Your task to perform on an android device: turn off airplane mode Image 0: 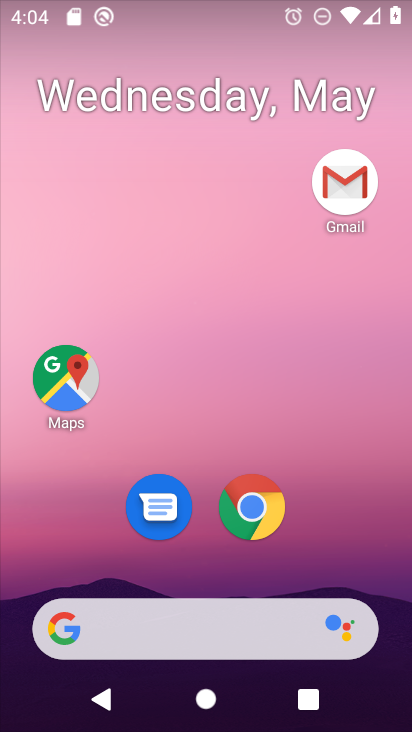
Step 0: drag from (313, 552) to (243, 300)
Your task to perform on an android device: turn off airplane mode Image 1: 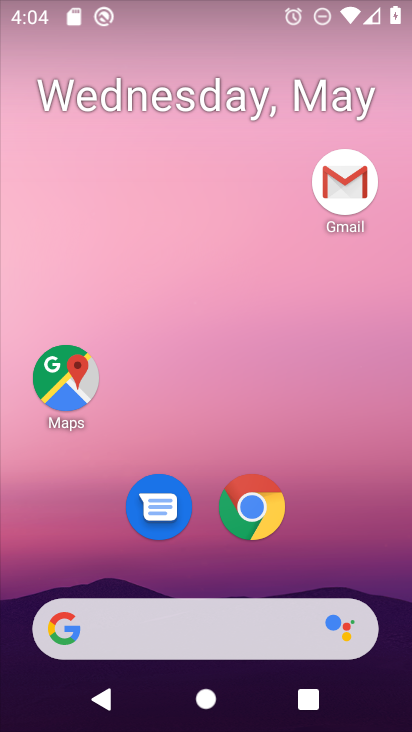
Step 1: drag from (307, 548) to (271, 96)
Your task to perform on an android device: turn off airplane mode Image 2: 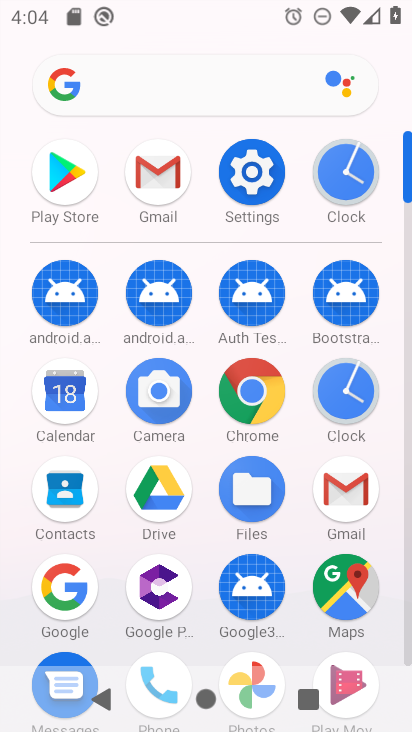
Step 2: click (241, 175)
Your task to perform on an android device: turn off airplane mode Image 3: 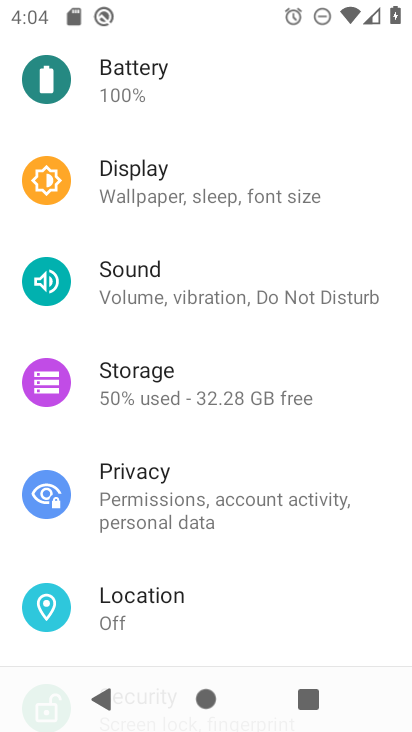
Step 3: drag from (303, 147) to (291, 391)
Your task to perform on an android device: turn off airplane mode Image 4: 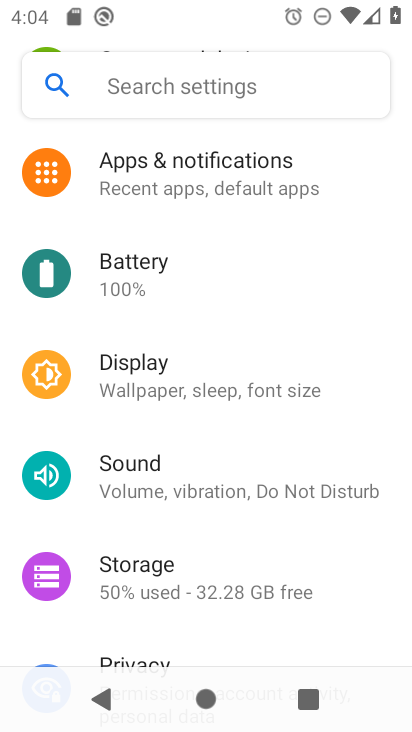
Step 4: drag from (285, 289) to (286, 623)
Your task to perform on an android device: turn off airplane mode Image 5: 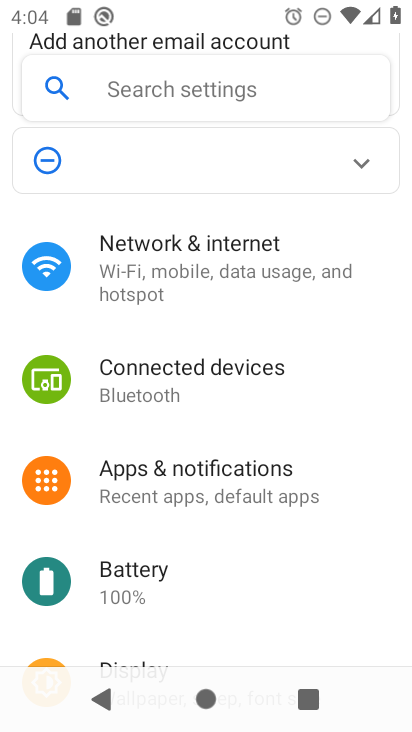
Step 5: click (284, 278)
Your task to perform on an android device: turn off airplane mode Image 6: 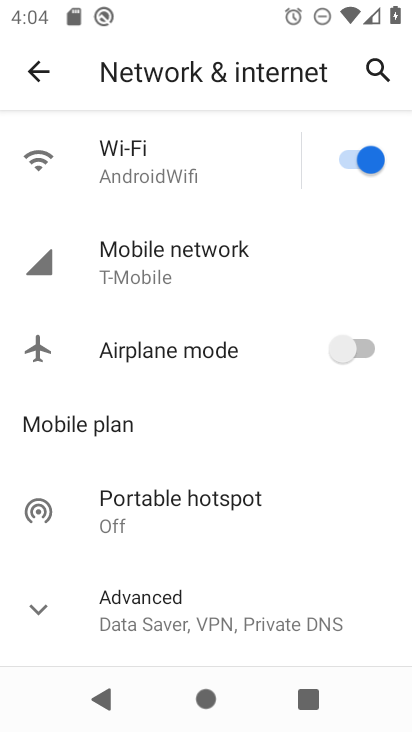
Step 6: task complete